Your task to perform on an android device: Open the map Image 0: 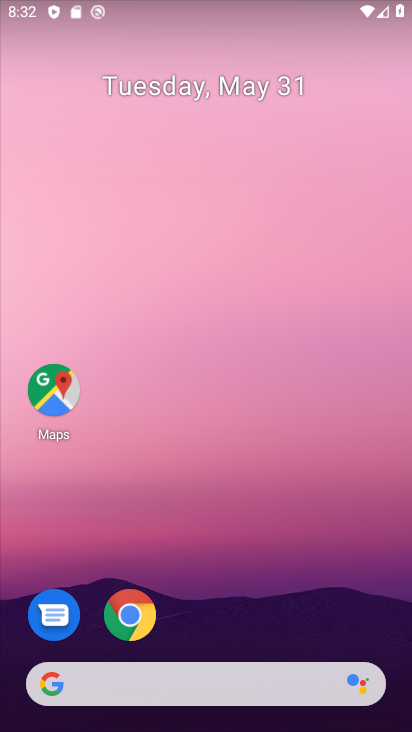
Step 0: click (57, 377)
Your task to perform on an android device: Open the map Image 1: 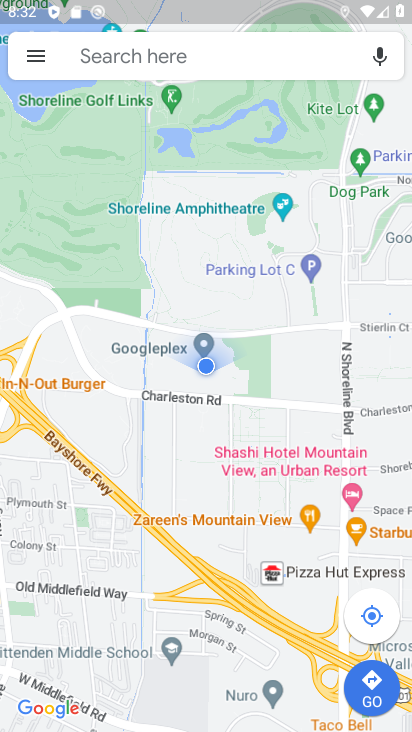
Step 1: task complete